Your task to perform on an android device: Go to Amazon Image 0: 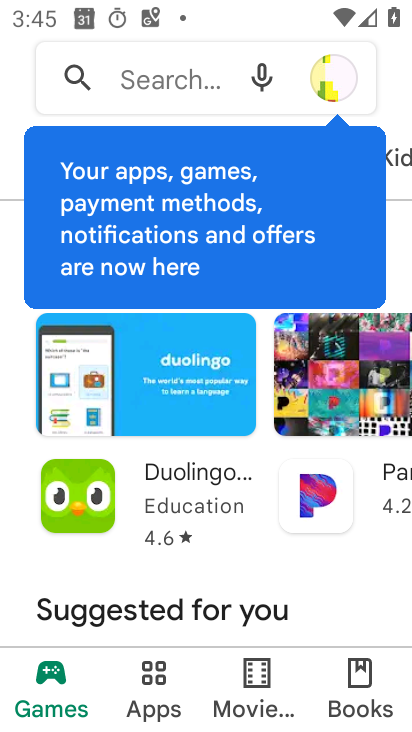
Step 0: press home button
Your task to perform on an android device: Go to Amazon Image 1: 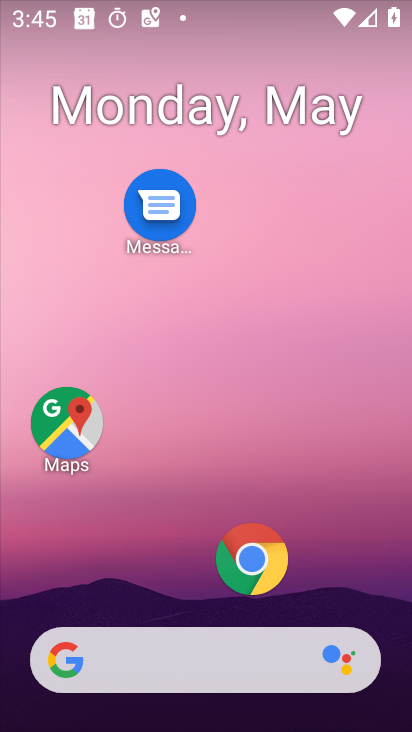
Step 1: click (251, 560)
Your task to perform on an android device: Go to Amazon Image 2: 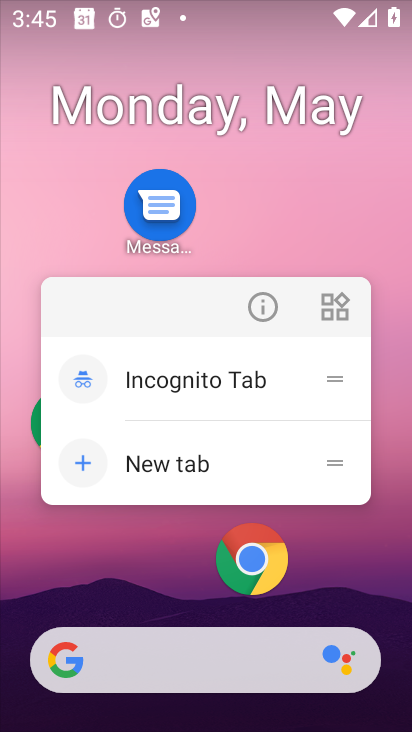
Step 2: click (265, 300)
Your task to perform on an android device: Go to Amazon Image 3: 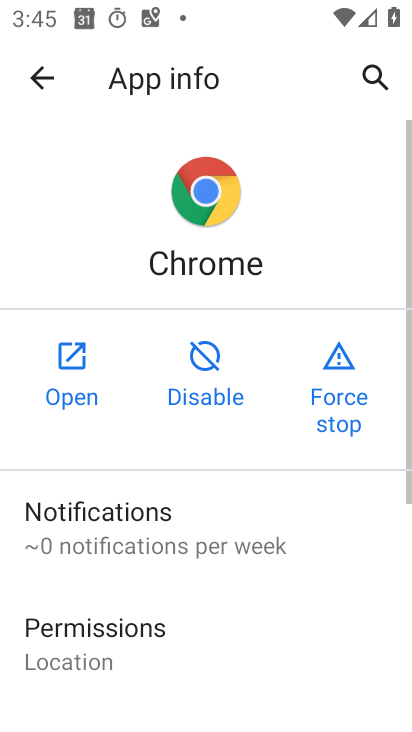
Step 3: click (59, 393)
Your task to perform on an android device: Go to Amazon Image 4: 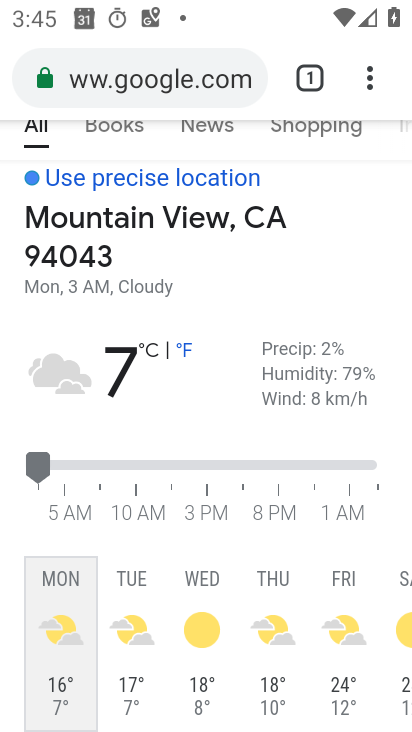
Step 4: click (141, 85)
Your task to perform on an android device: Go to Amazon Image 5: 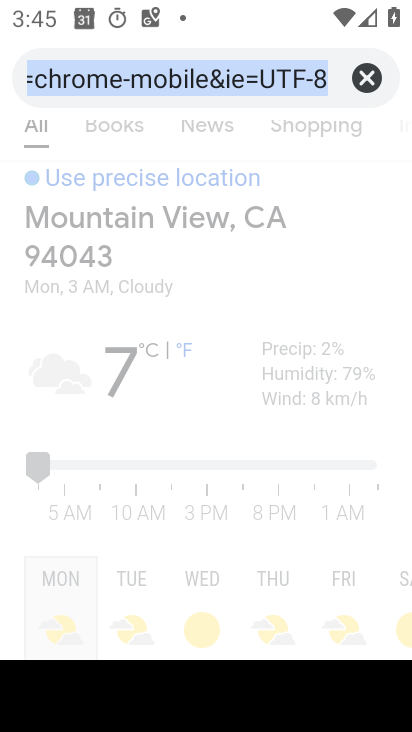
Step 5: type "amazon"
Your task to perform on an android device: Go to Amazon Image 6: 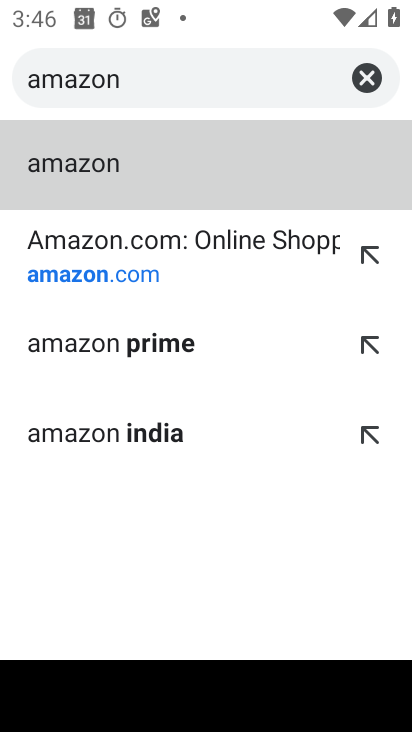
Step 6: click (127, 160)
Your task to perform on an android device: Go to Amazon Image 7: 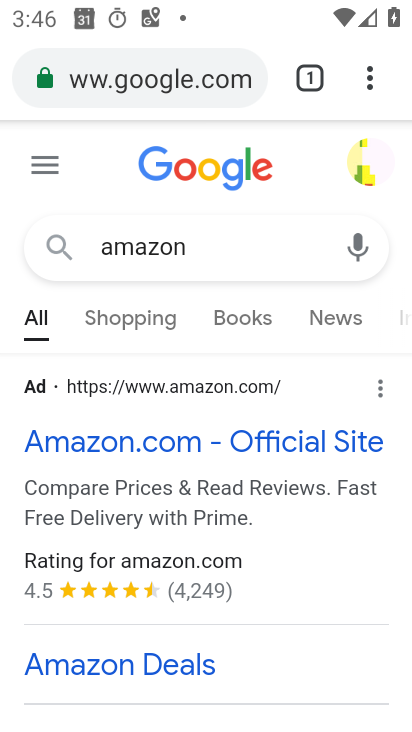
Step 7: task complete